Your task to perform on an android device: Go to sound settings Image 0: 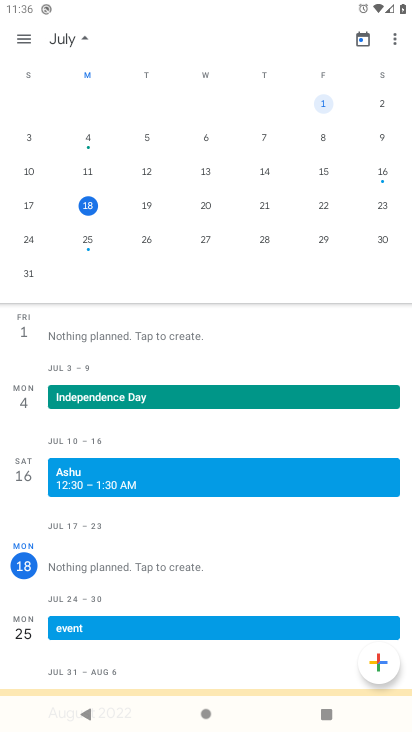
Step 0: press home button
Your task to perform on an android device: Go to sound settings Image 1: 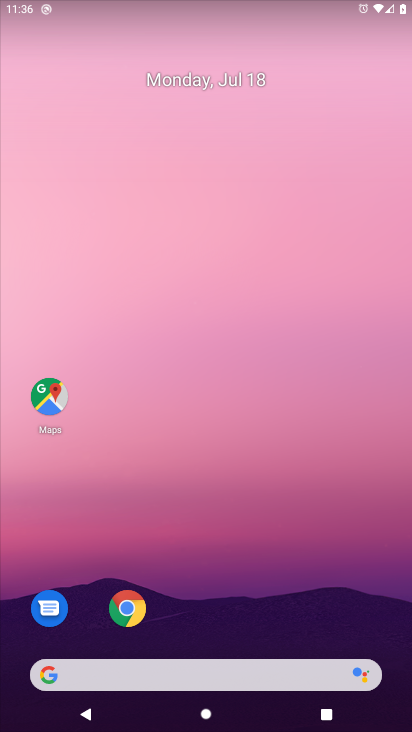
Step 1: drag from (18, 659) to (203, 220)
Your task to perform on an android device: Go to sound settings Image 2: 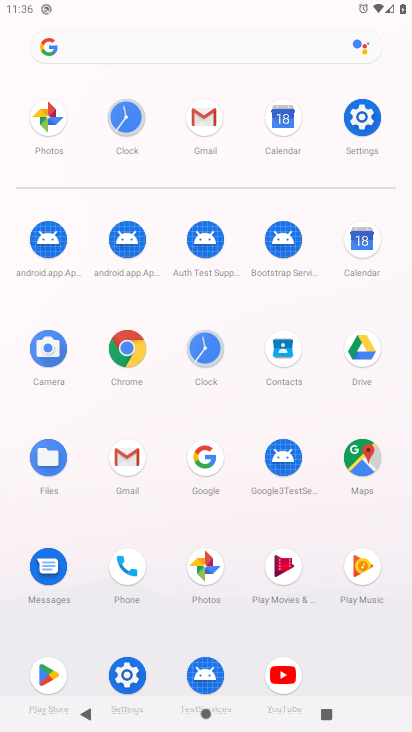
Step 2: click (121, 671)
Your task to perform on an android device: Go to sound settings Image 3: 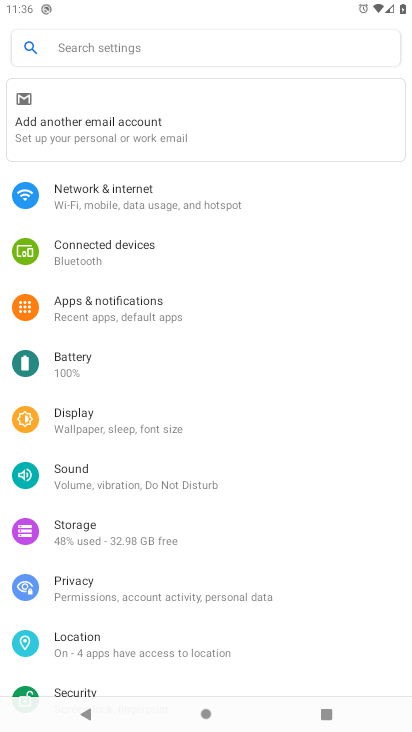
Step 3: click (99, 480)
Your task to perform on an android device: Go to sound settings Image 4: 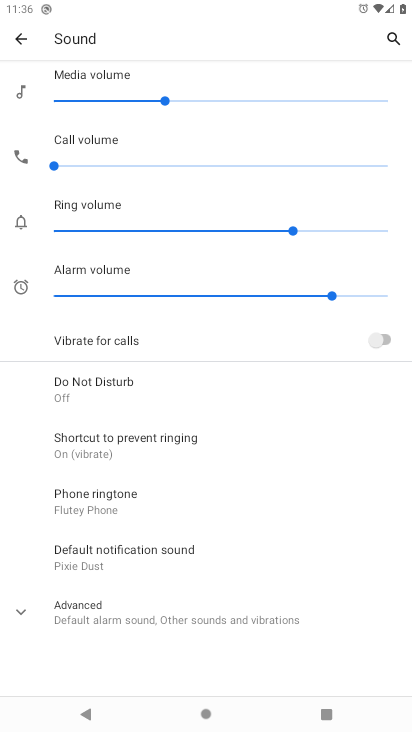
Step 4: task complete